Your task to perform on an android device: change timer sound Image 0: 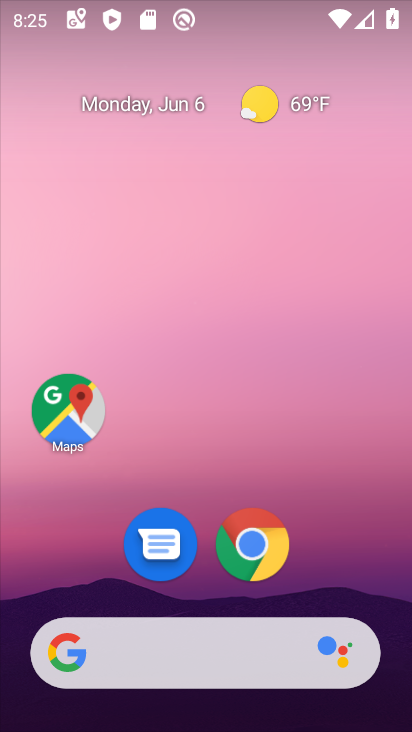
Step 0: drag from (258, 463) to (302, 120)
Your task to perform on an android device: change timer sound Image 1: 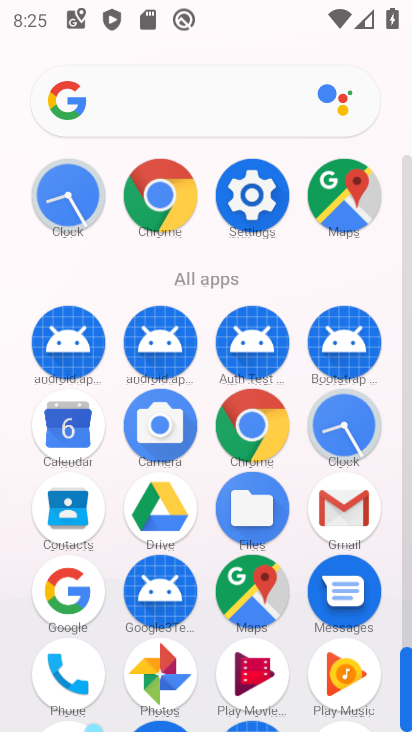
Step 1: click (346, 429)
Your task to perform on an android device: change timer sound Image 2: 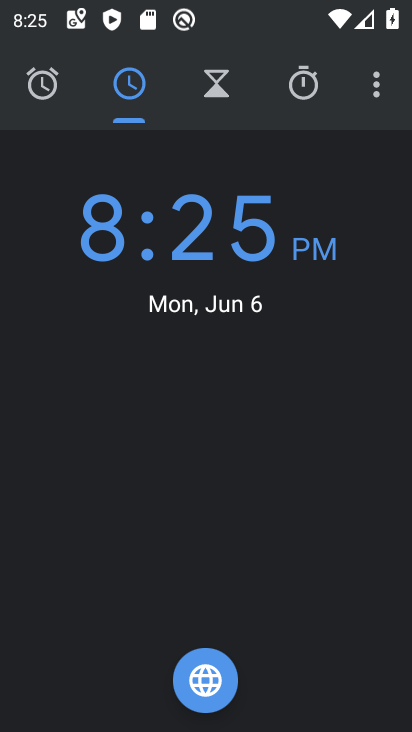
Step 2: click (380, 91)
Your task to perform on an android device: change timer sound Image 3: 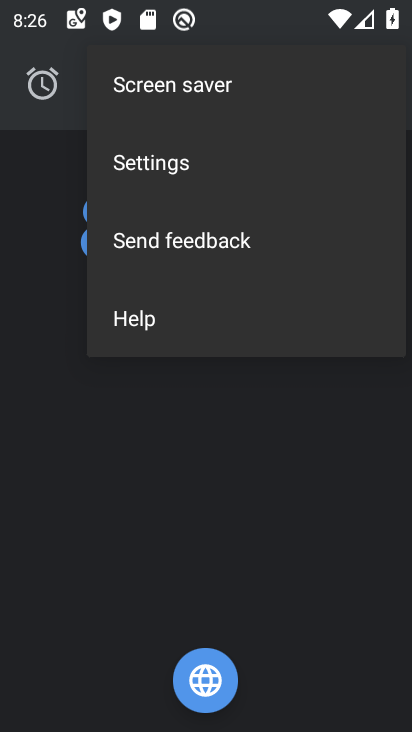
Step 3: click (205, 174)
Your task to perform on an android device: change timer sound Image 4: 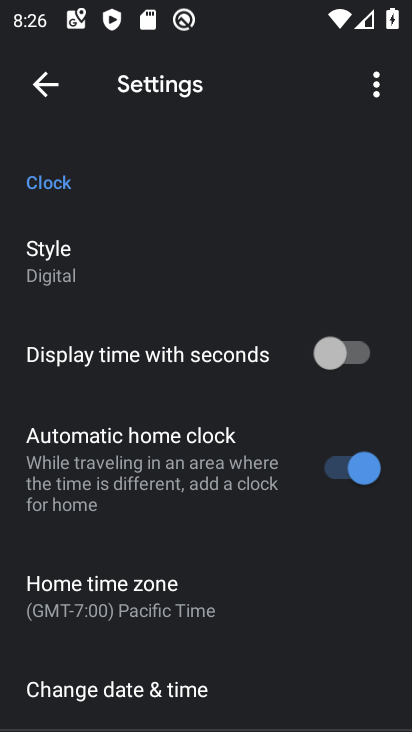
Step 4: drag from (169, 551) to (181, 183)
Your task to perform on an android device: change timer sound Image 5: 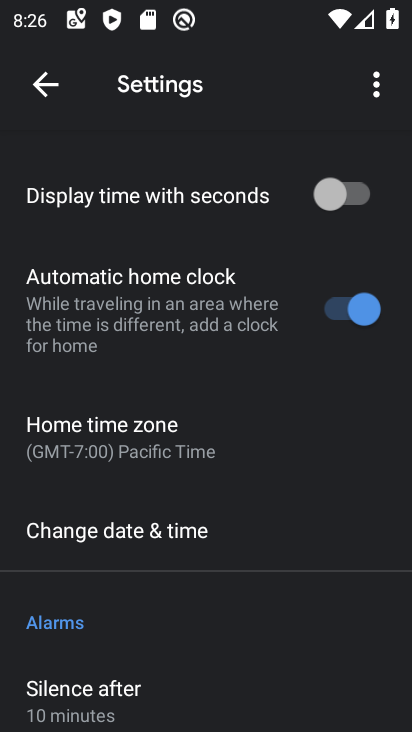
Step 5: drag from (111, 658) to (164, 330)
Your task to perform on an android device: change timer sound Image 6: 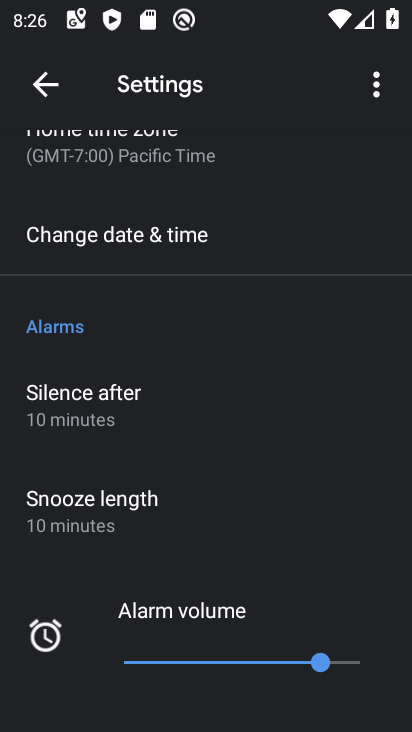
Step 6: drag from (91, 612) to (140, 228)
Your task to perform on an android device: change timer sound Image 7: 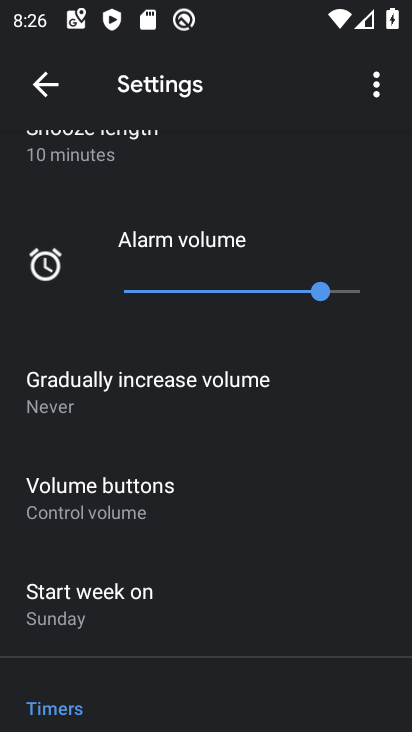
Step 7: drag from (90, 649) to (120, 378)
Your task to perform on an android device: change timer sound Image 8: 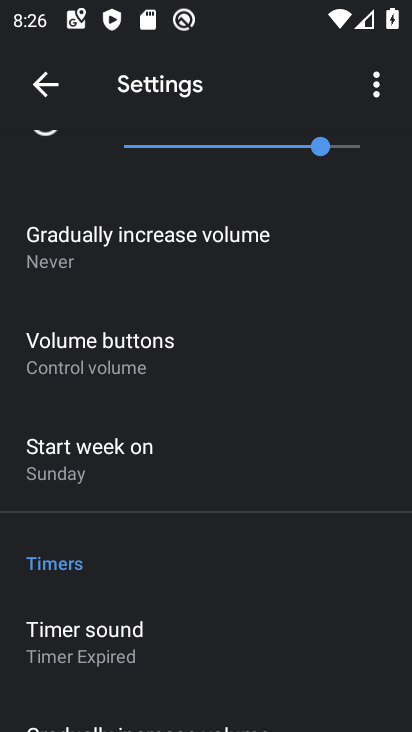
Step 8: click (86, 644)
Your task to perform on an android device: change timer sound Image 9: 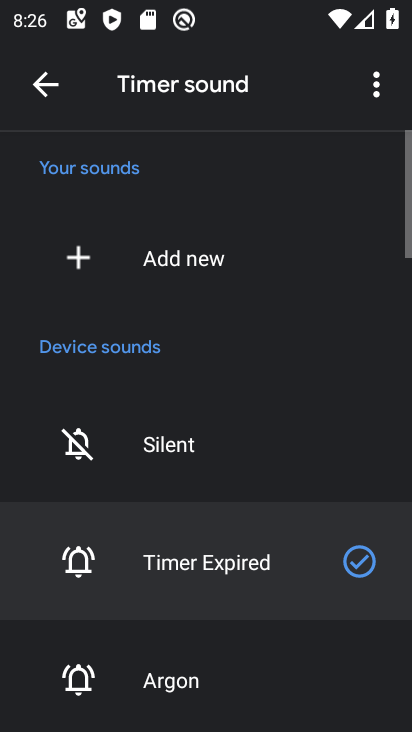
Step 9: click (173, 669)
Your task to perform on an android device: change timer sound Image 10: 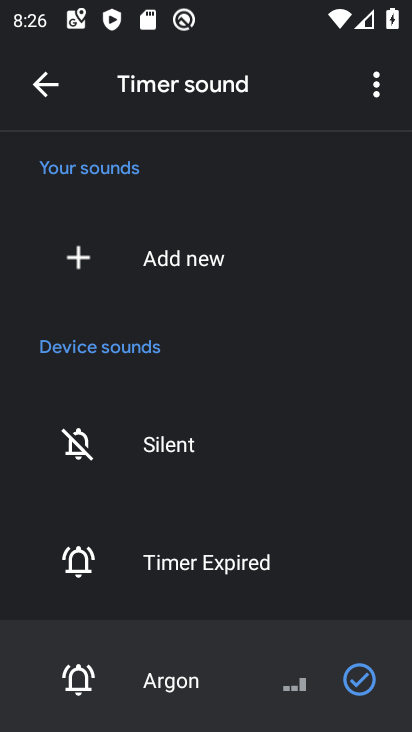
Step 10: task complete